Your task to perform on an android device: choose inbox layout in the gmail app Image 0: 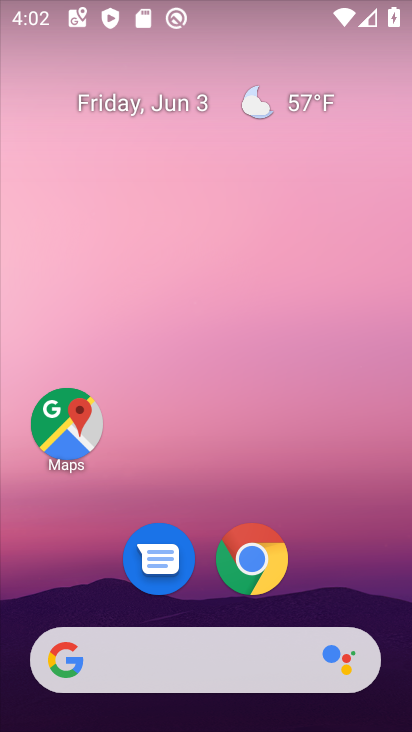
Step 0: drag from (352, 583) to (349, 89)
Your task to perform on an android device: choose inbox layout in the gmail app Image 1: 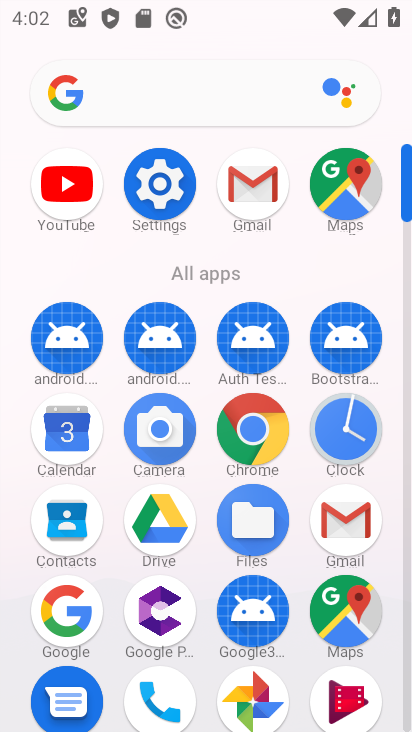
Step 1: click (344, 507)
Your task to perform on an android device: choose inbox layout in the gmail app Image 2: 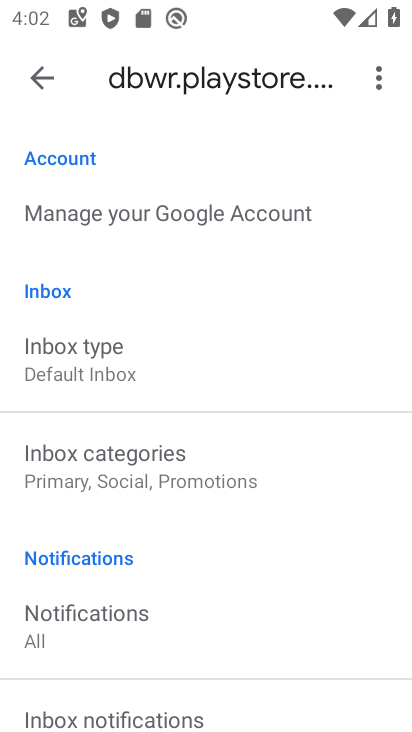
Step 2: click (88, 363)
Your task to perform on an android device: choose inbox layout in the gmail app Image 3: 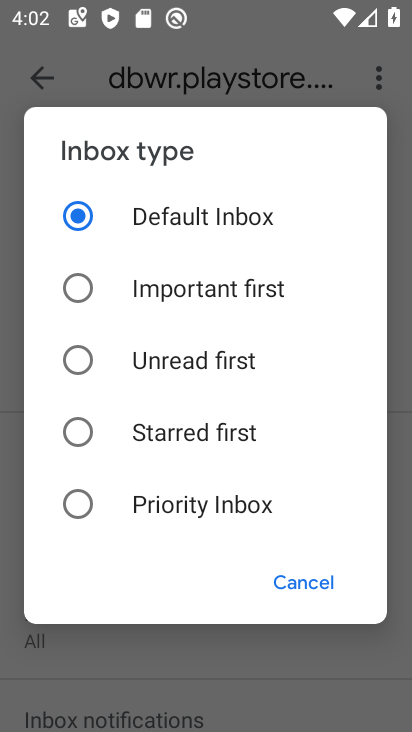
Step 3: click (176, 287)
Your task to perform on an android device: choose inbox layout in the gmail app Image 4: 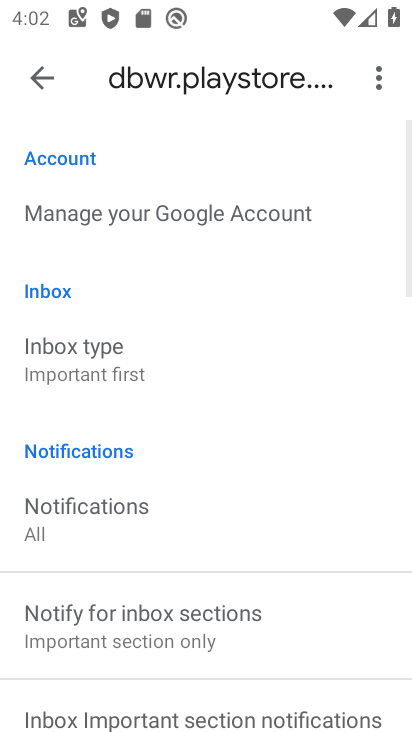
Step 4: task complete